Your task to perform on an android device: Go to sound settings Image 0: 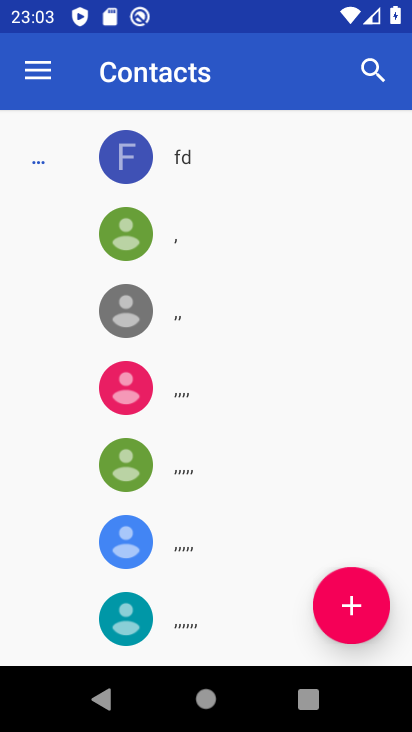
Step 0: task complete